Your task to perform on an android device: toggle priority inbox in the gmail app Image 0: 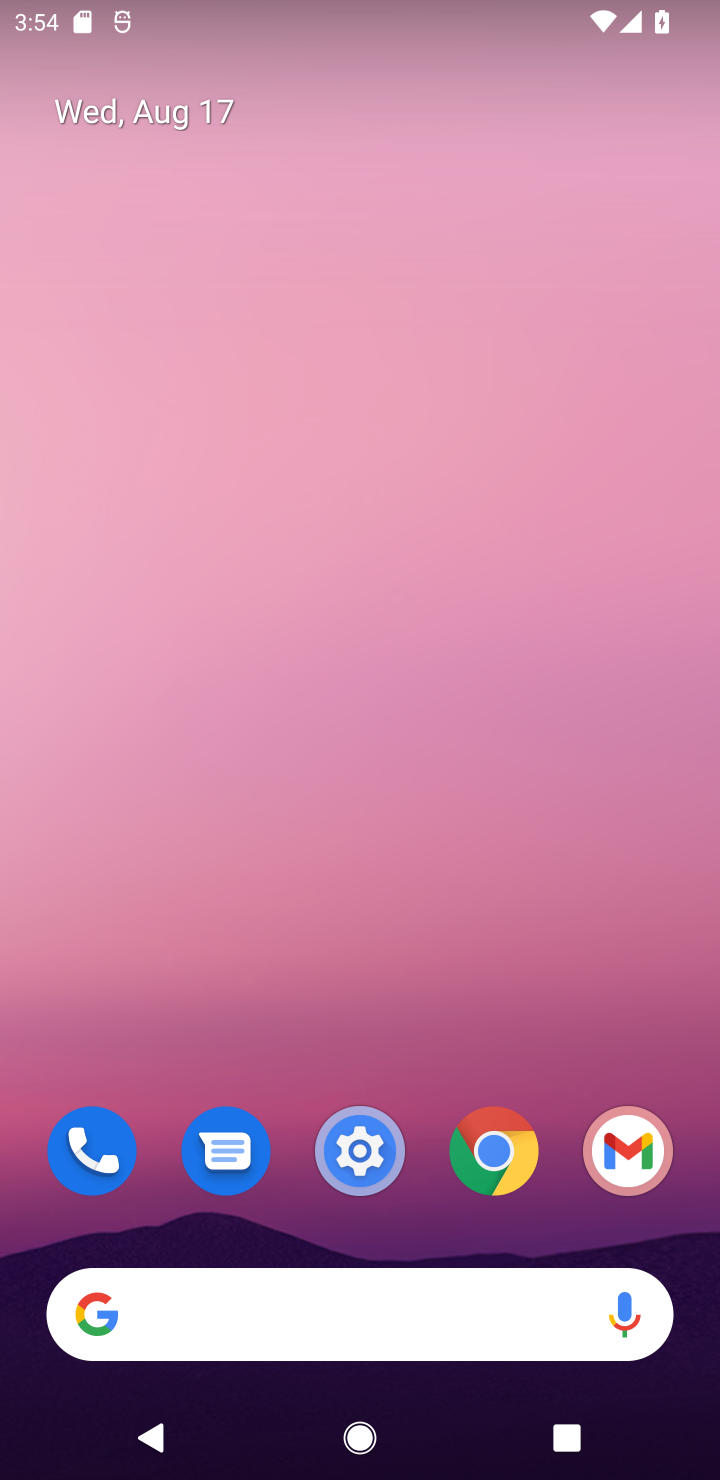
Step 0: click (376, 1150)
Your task to perform on an android device: toggle priority inbox in the gmail app Image 1: 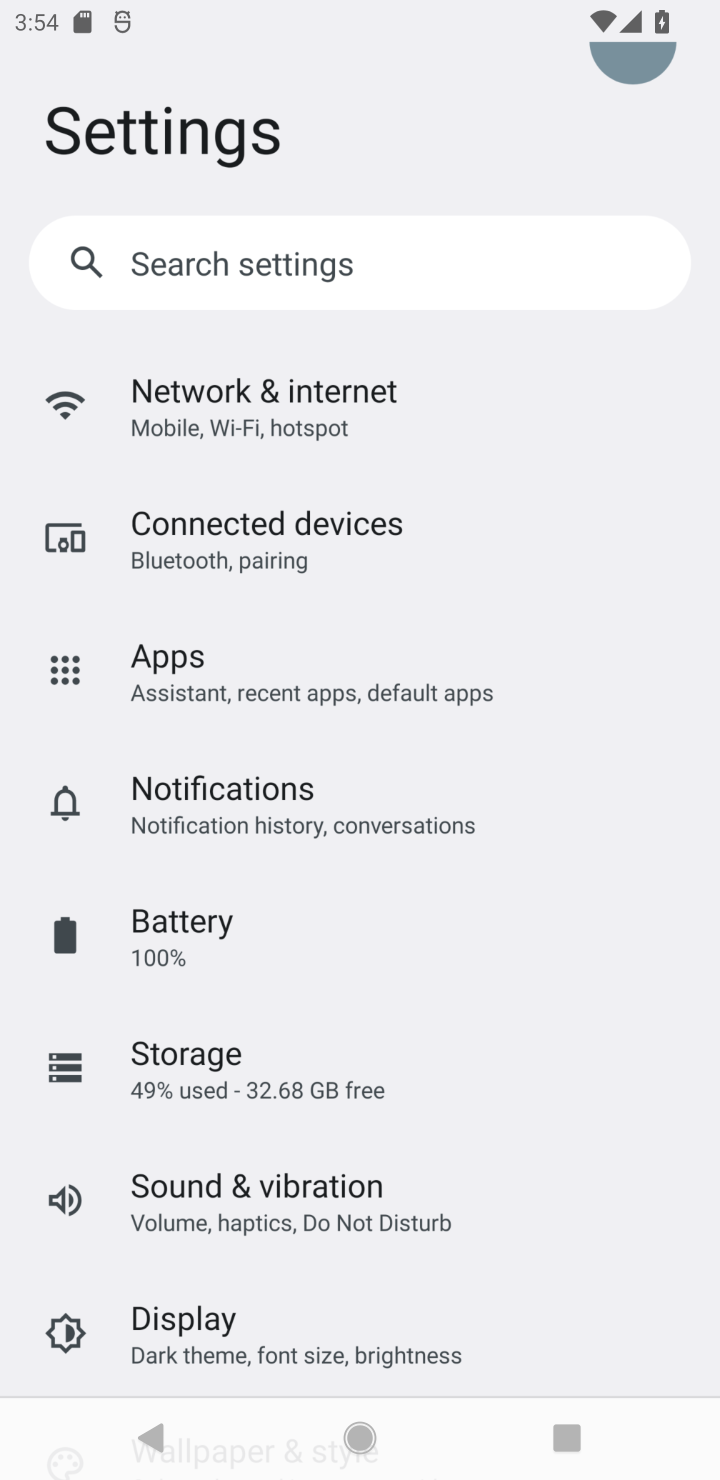
Step 1: press home button
Your task to perform on an android device: toggle priority inbox in the gmail app Image 2: 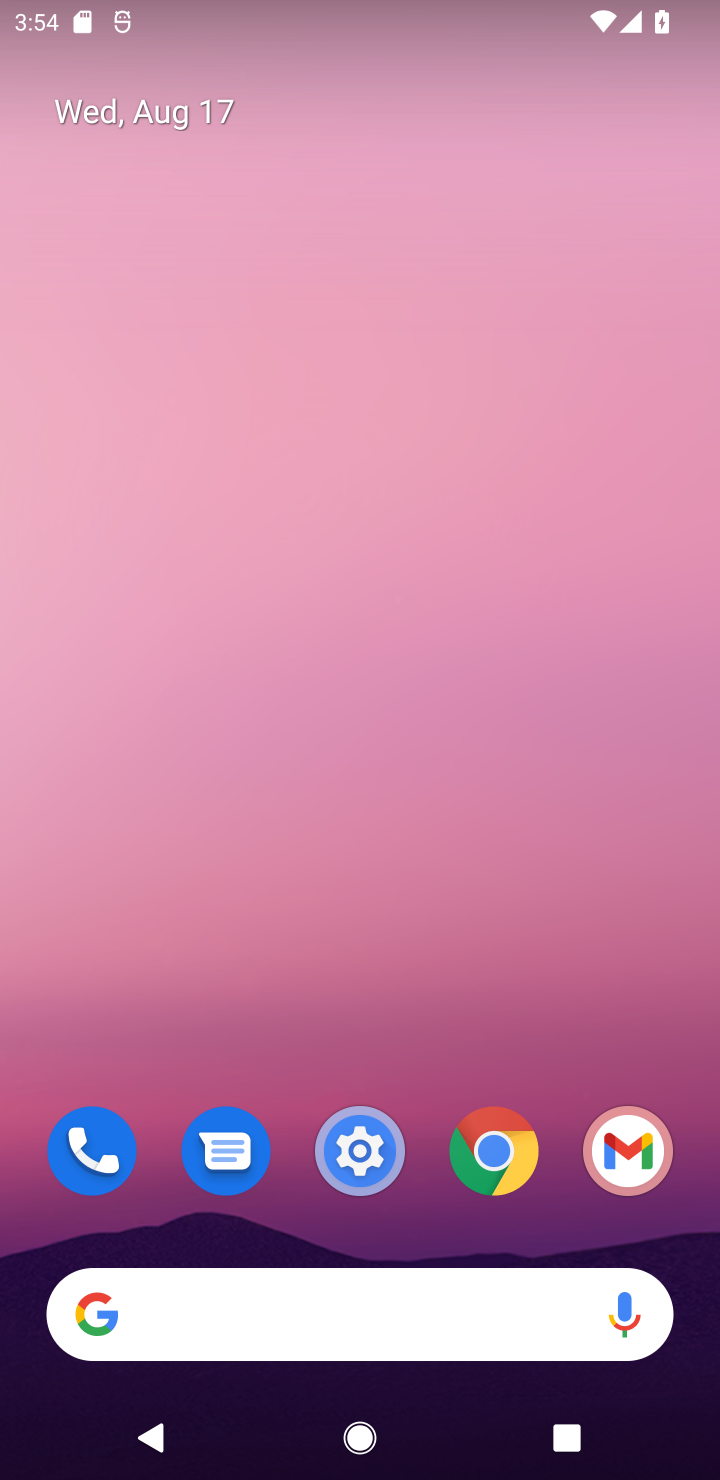
Step 2: click (660, 1171)
Your task to perform on an android device: toggle priority inbox in the gmail app Image 3: 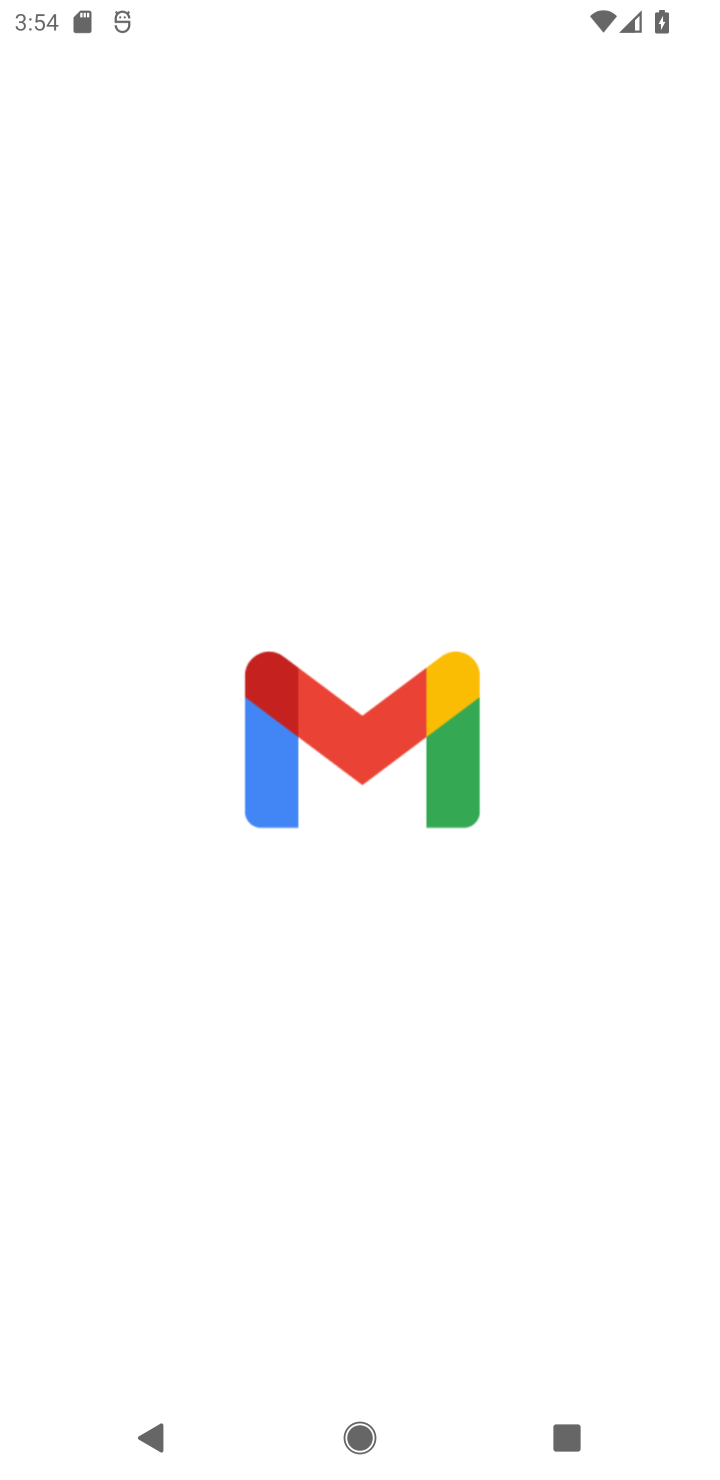
Step 3: task complete